Your task to perform on an android device: Open Yahoo.com Image 0: 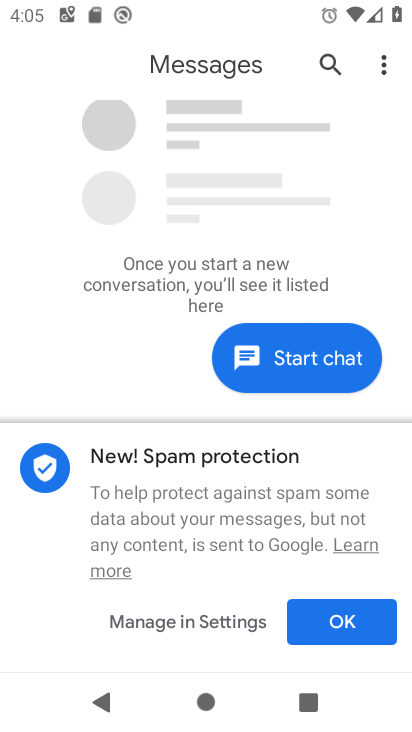
Step 0: press home button
Your task to perform on an android device: Open Yahoo.com Image 1: 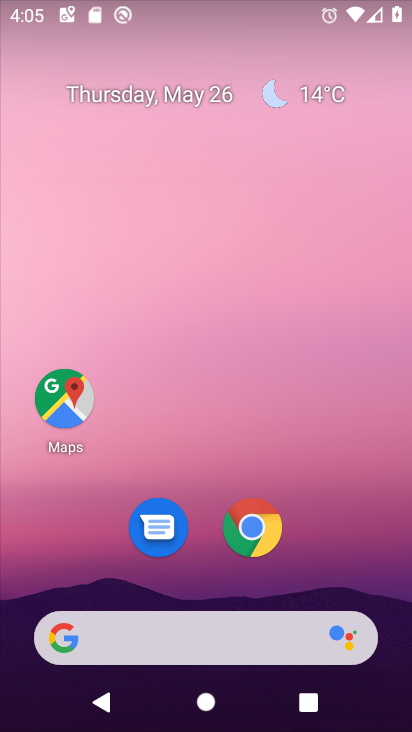
Step 1: click (269, 525)
Your task to perform on an android device: Open Yahoo.com Image 2: 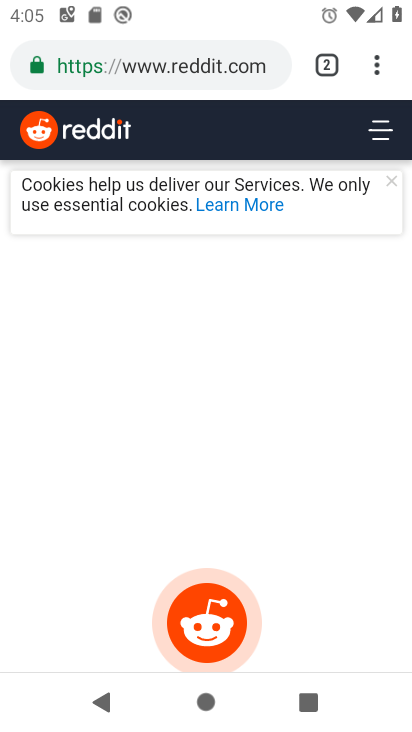
Step 2: click (196, 65)
Your task to perform on an android device: Open Yahoo.com Image 3: 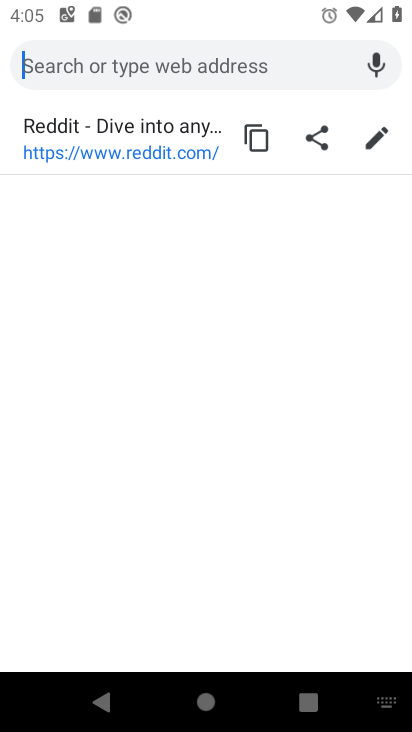
Step 3: type "yahoo.com"
Your task to perform on an android device: Open Yahoo.com Image 4: 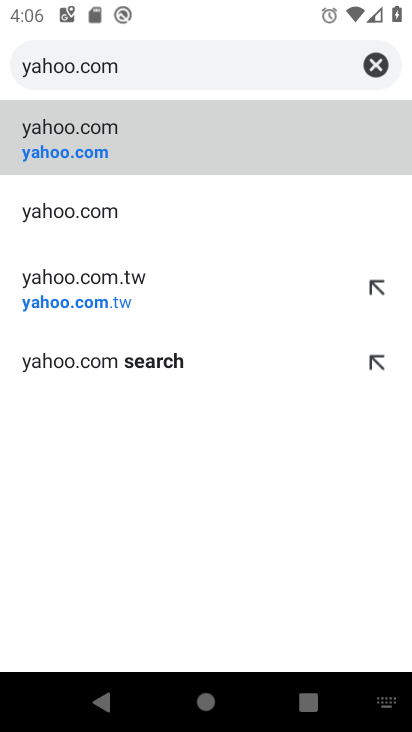
Step 4: click (93, 147)
Your task to perform on an android device: Open Yahoo.com Image 5: 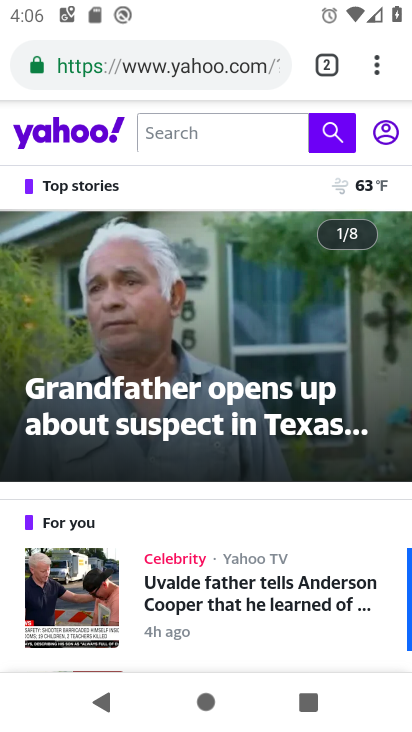
Step 5: task complete